Your task to perform on an android device: Open display settings Image 0: 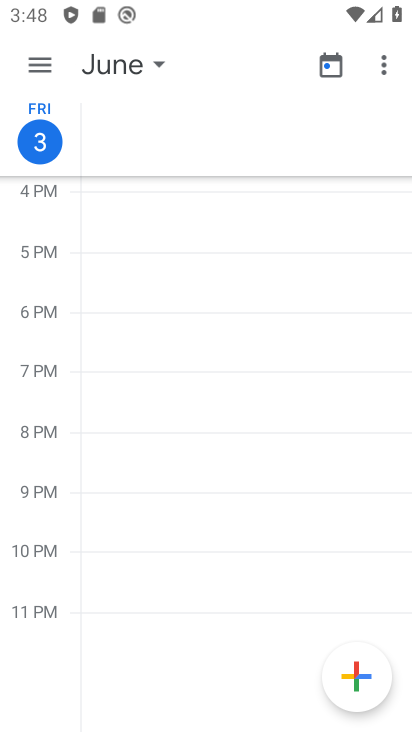
Step 0: press home button
Your task to perform on an android device: Open display settings Image 1: 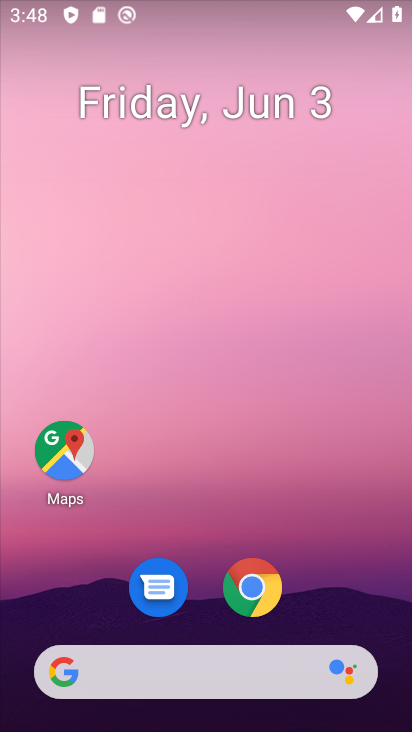
Step 1: drag from (363, 527) to (402, 44)
Your task to perform on an android device: Open display settings Image 2: 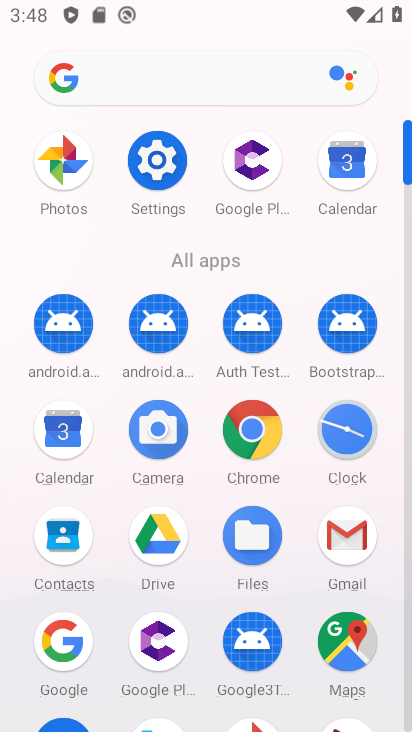
Step 2: click (171, 182)
Your task to perform on an android device: Open display settings Image 3: 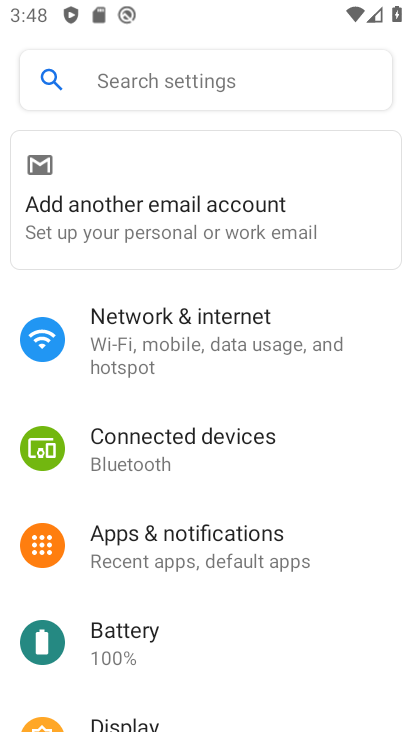
Step 3: drag from (229, 664) to (233, 389)
Your task to perform on an android device: Open display settings Image 4: 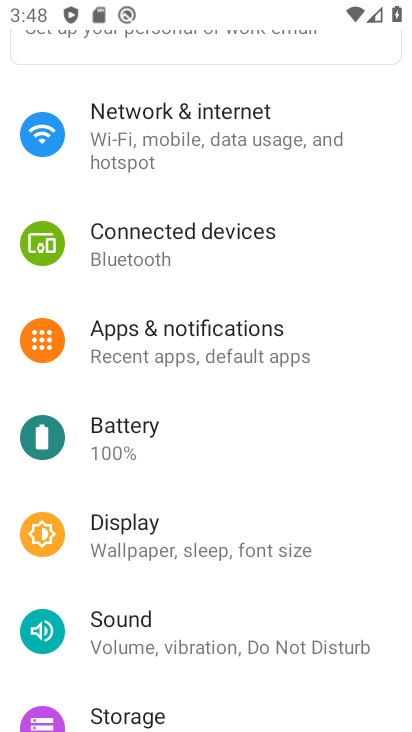
Step 4: click (170, 526)
Your task to perform on an android device: Open display settings Image 5: 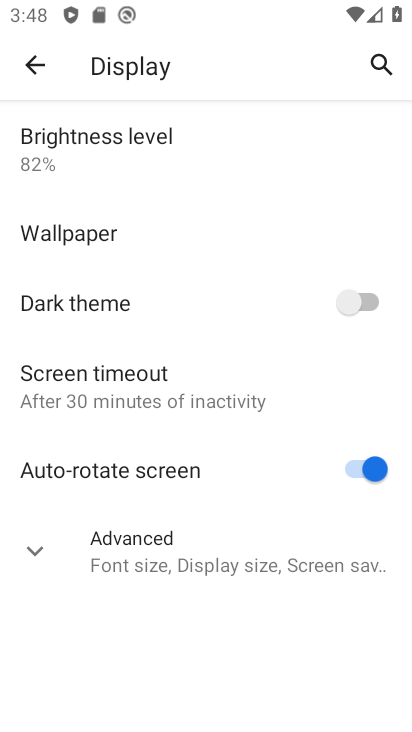
Step 5: task complete